Your task to perform on an android device: turn off location Image 0: 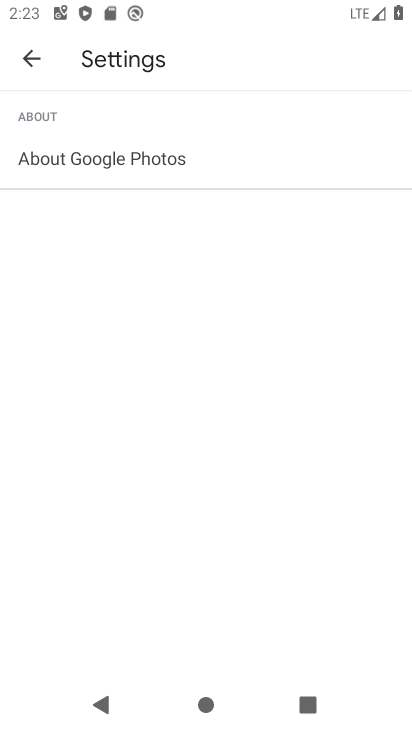
Step 0: press home button
Your task to perform on an android device: turn off location Image 1: 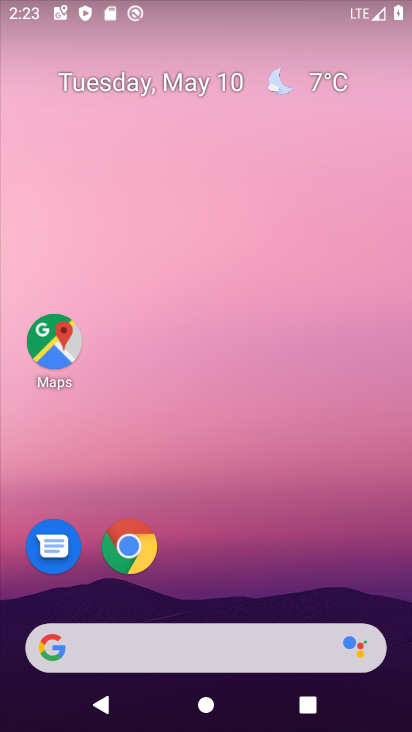
Step 1: drag from (347, 497) to (320, 110)
Your task to perform on an android device: turn off location Image 2: 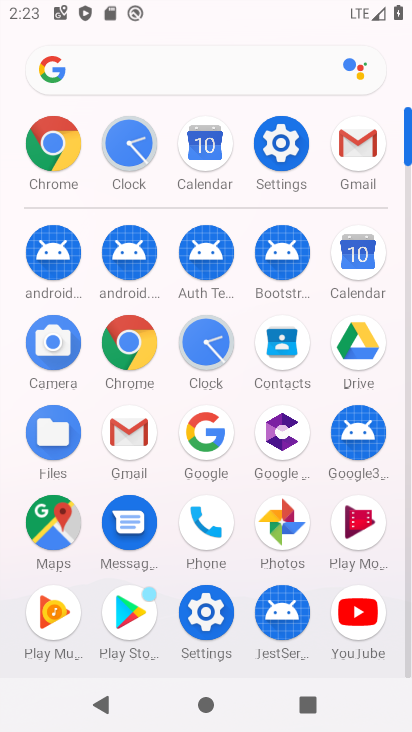
Step 2: click (200, 618)
Your task to perform on an android device: turn off location Image 3: 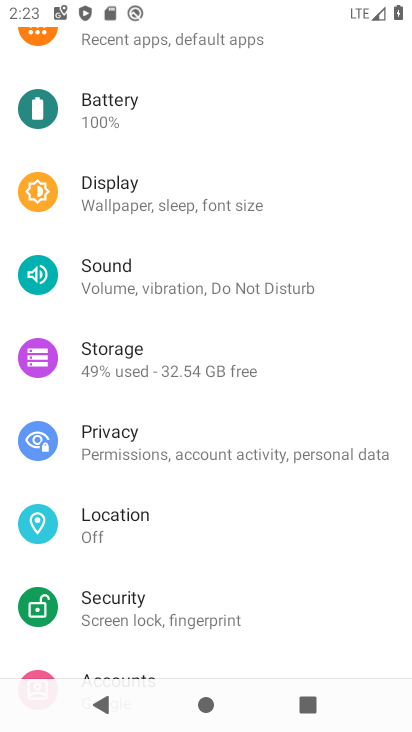
Step 3: click (115, 523)
Your task to perform on an android device: turn off location Image 4: 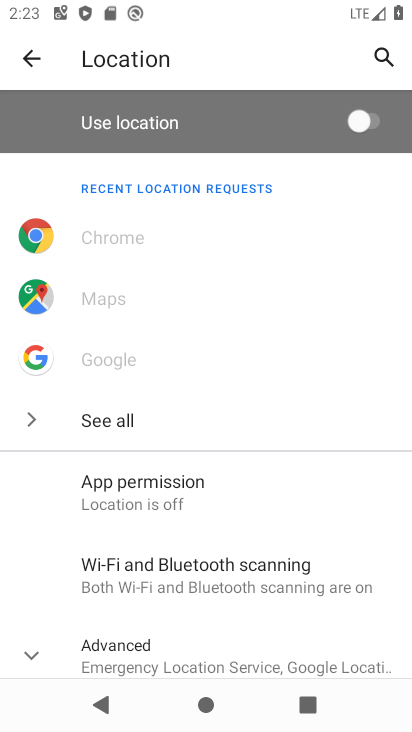
Step 4: task complete